Your task to perform on an android device: turn on notifications settings in the gmail app Image 0: 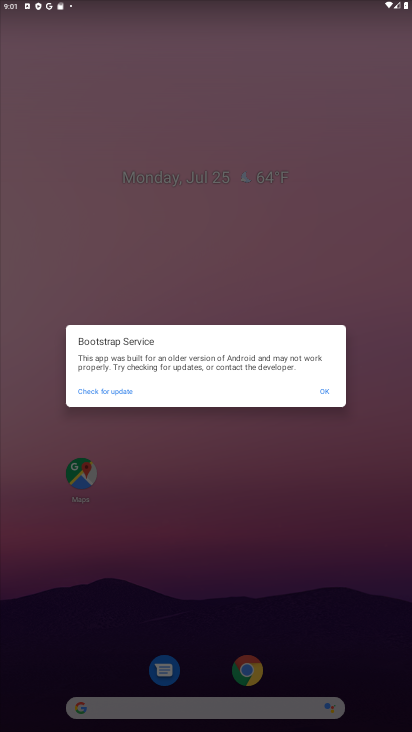
Step 0: click (324, 392)
Your task to perform on an android device: turn on notifications settings in the gmail app Image 1: 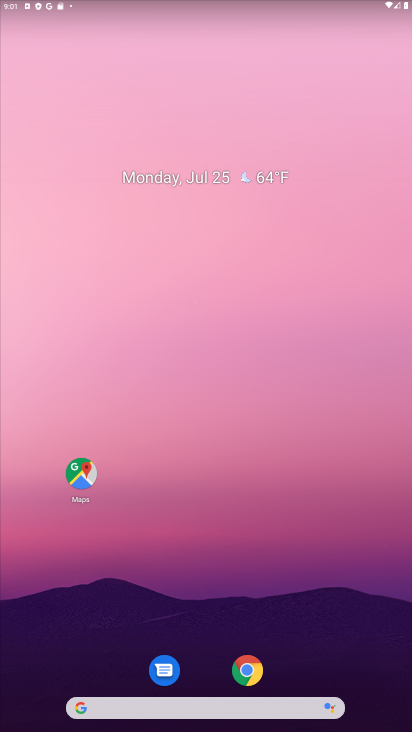
Step 1: drag from (318, 592) to (153, 51)
Your task to perform on an android device: turn on notifications settings in the gmail app Image 2: 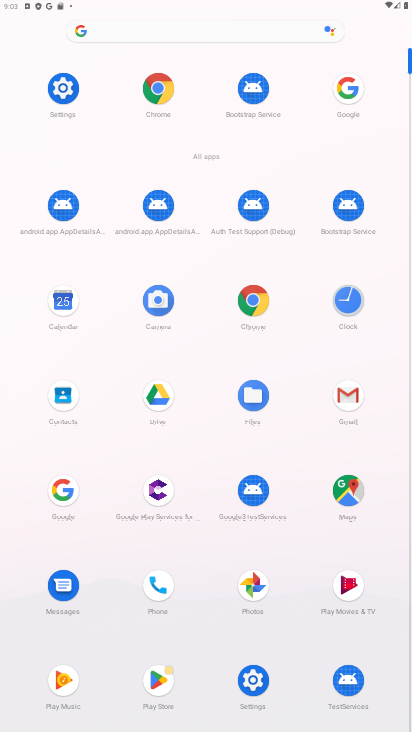
Step 2: click (367, 384)
Your task to perform on an android device: turn on notifications settings in the gmail app Image 3: 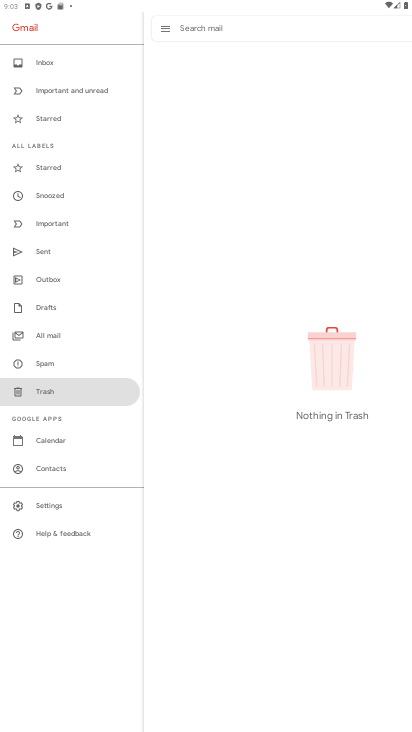
Step 3: click (69, 505)
Your task to perform on an android device: turn on notifications settings in the gmail app Image 4: 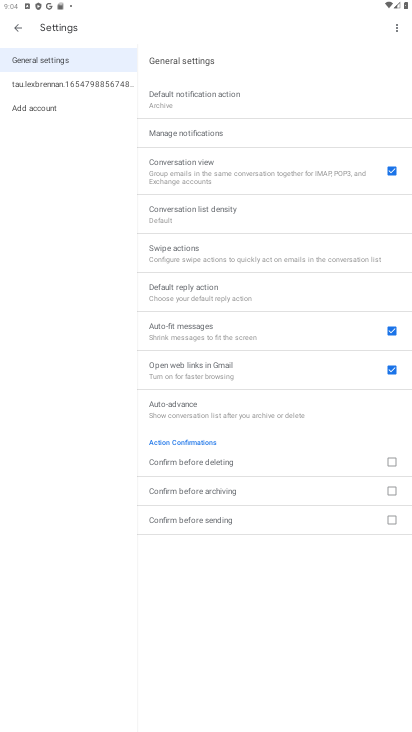
Step 4: click (64, 84)
Your task to perform on an android device: turn on notifications settings in the gmail app Image 5: 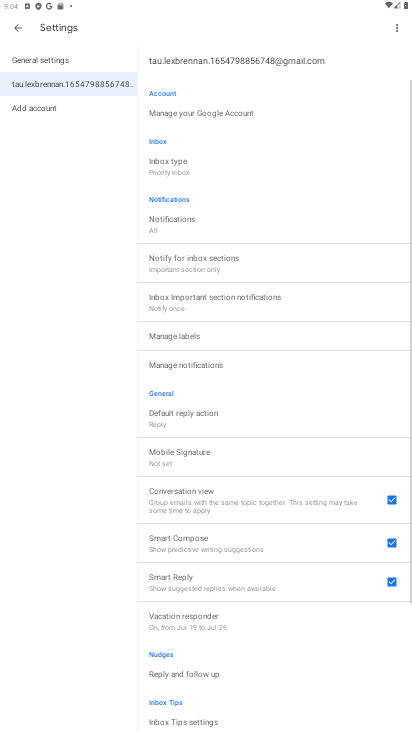
Step 5: click (189, 224)
Your task to perform on an android device: turn on notifications settings in the gmail app Image 6: 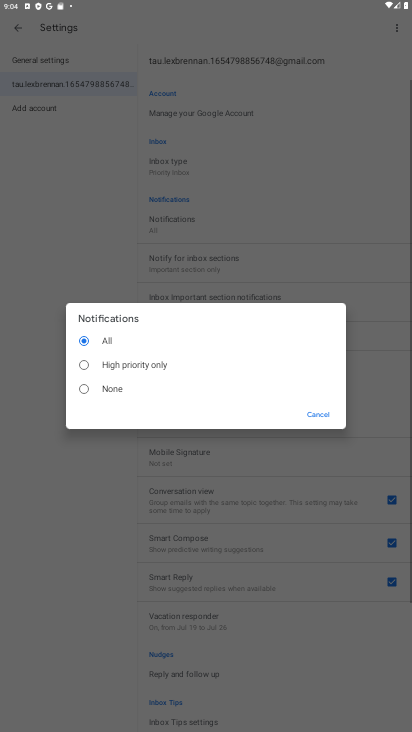
Step 6: click (109, 338)
Your task to perform on an android device: turn on notifications settings in the gmail app Image 7: 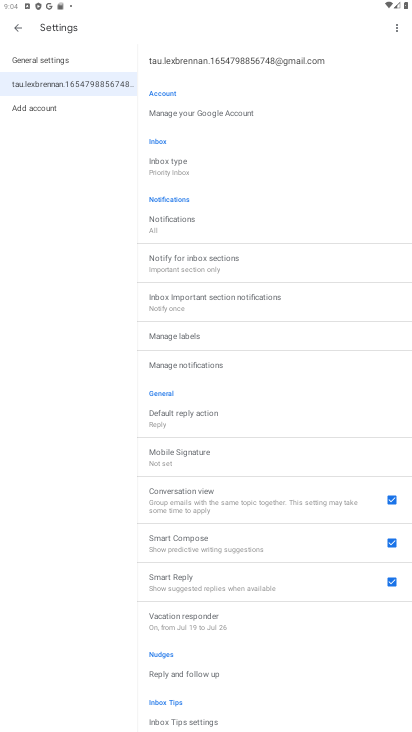
Step 7: task complete